Your task to perform on an android device: turn on data saver in the chrome app Image 0: 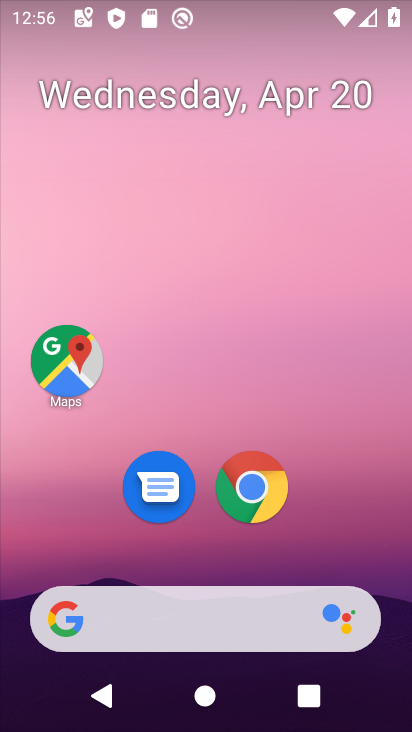
Step 0: drag from (366, 546) to (287, 91)
Your task to perform on an android device: turn on data saver in the chrome app Image 1: 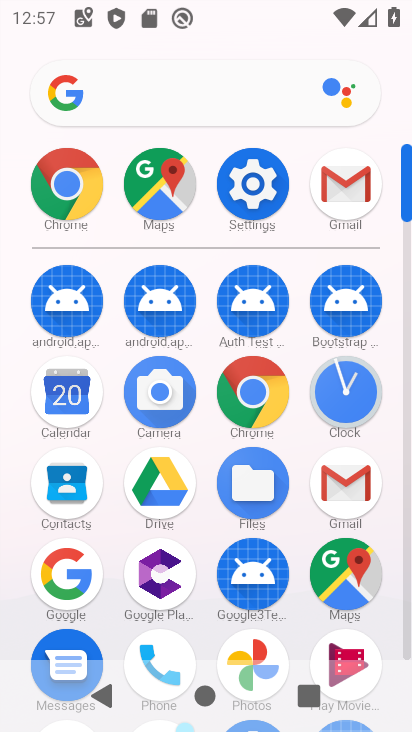
Step 1: click (267, 406)
Your task to perform on an android device: turn on data saver in the chrome app Image 2: 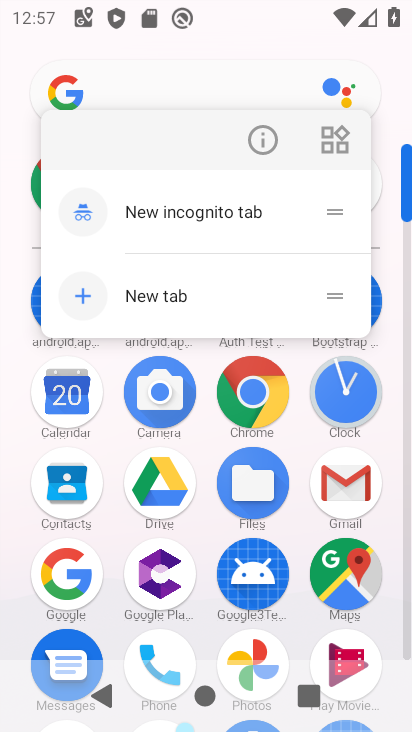
Step 2: click (262, 403)
Your task to perform on an android device: turn on data saver in the chrome app Image 3: 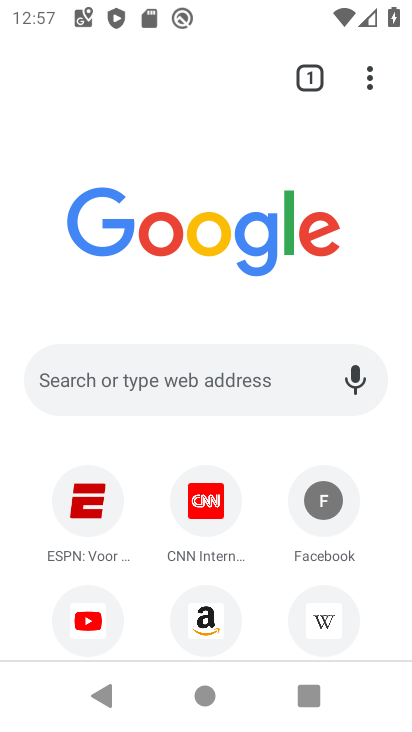
Step 3: click (361, 73)
Your task to perform on an android device: turn on data saver in the chrome app Image 4: 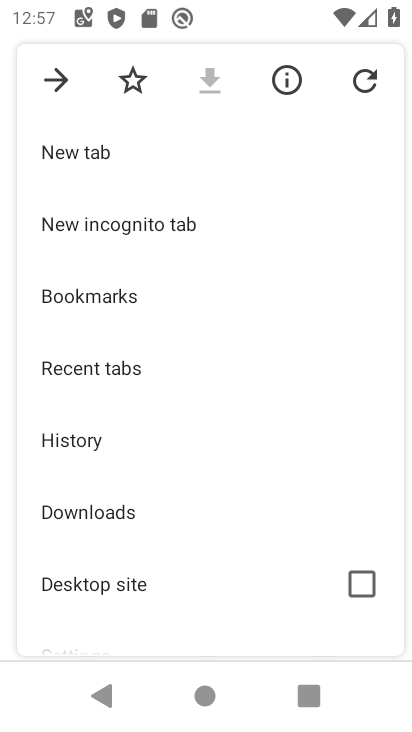
Step 4: drag from (138, 596) to (250, 237)
Your task to perform on an android device: turn on data saver in the chrome app Image 5: 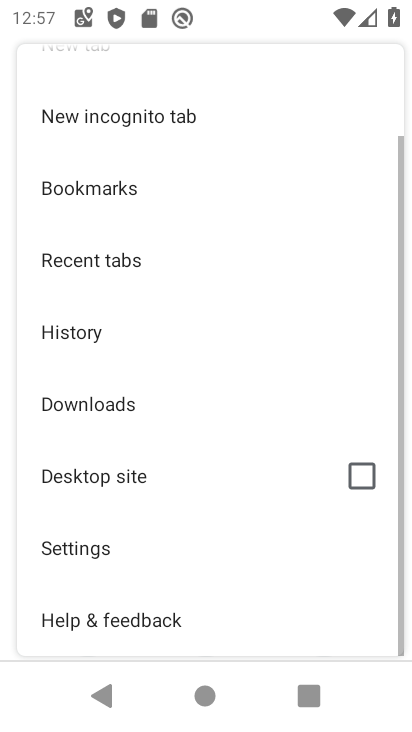
Step 5: click (115, 549)
Your task to perform on an android device: turn on data saver in the chrome app Image 6: 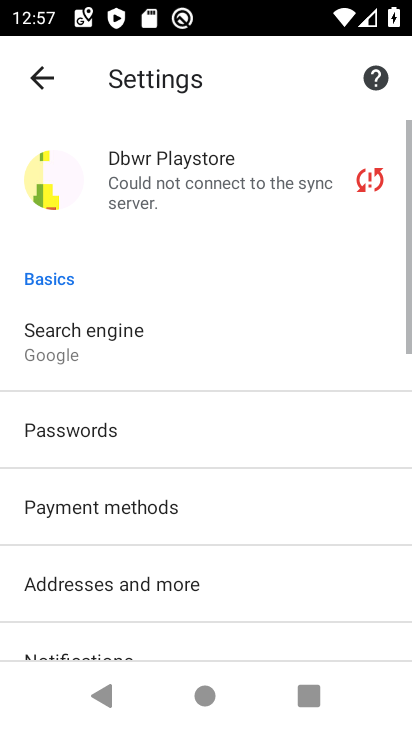
Step 6: drag from (92, 601) to (184, 207)
Your task to perform on an android device: turn on data saver in the chrome app Image 7: 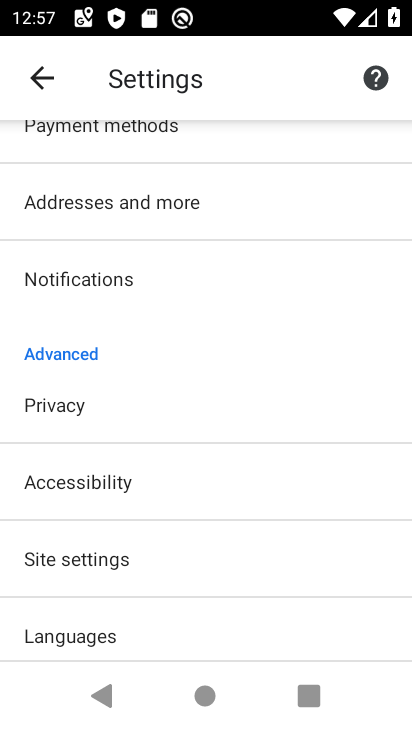
Step 7: drag from (138, 613) to (228, 290)
Your task to perform on an android device: turn on data saver in the chrome app Image 8: 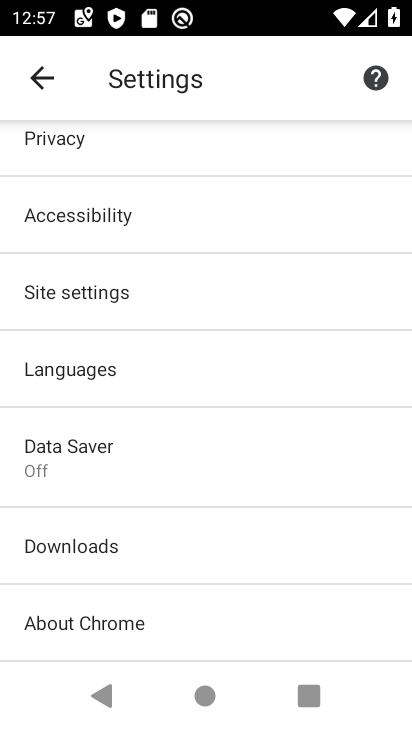
Step 8: click (143, 452)
Your task to perform on an android device: turn on data saver in the chrome app Image 9: 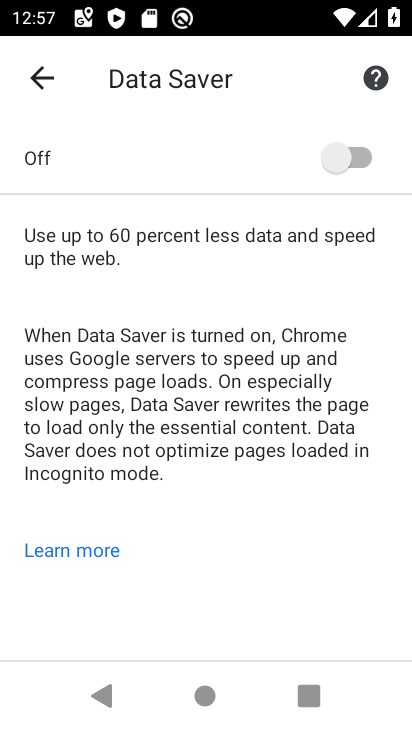
Step 9: click (322, 146)
Your task to perform on an android device: turn on data saver in the chrome app Image 10: 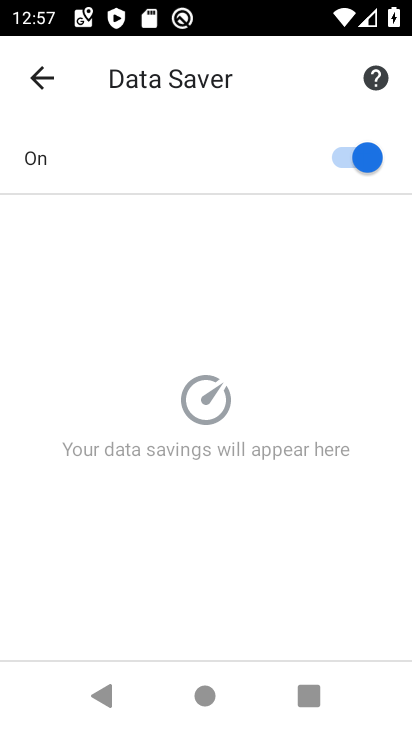
Step 10: task complete